Your task to perform on an android device: Go to internet settings Image 0: 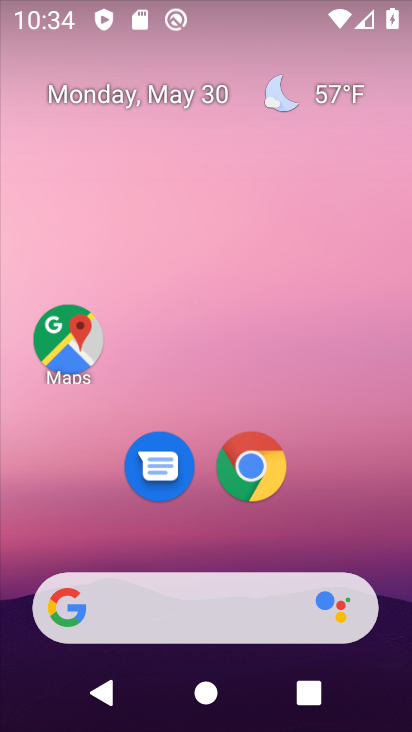
Step 0: drag from (334, 527) to (325, 170)
Your task to perform on an android device: Go to internet settings Image 1: 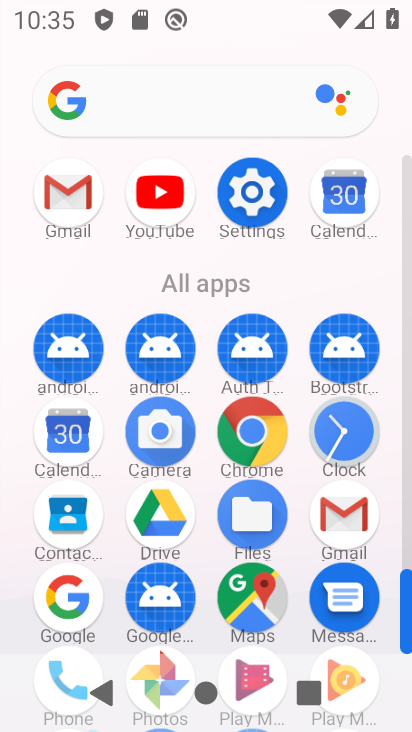
Step 1: click (265, 177)
Your task to perform on an android device: Go to internet settings Image 2: 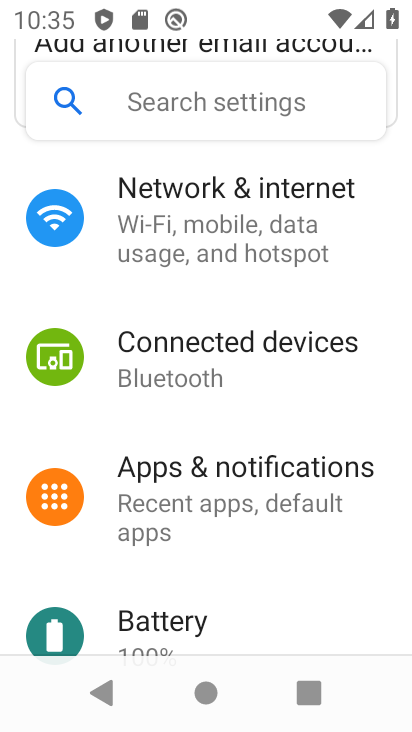
Step 2: click (219, 219)
Your task to perform on an android device: Go to internet settings Image 3: 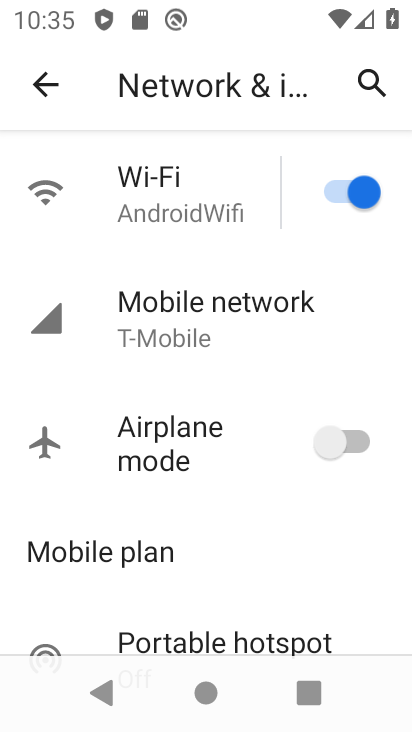
Step 3: task complete